Your task to perform on an android device: Open Youtube and go to the subscriptions tab Image 0: 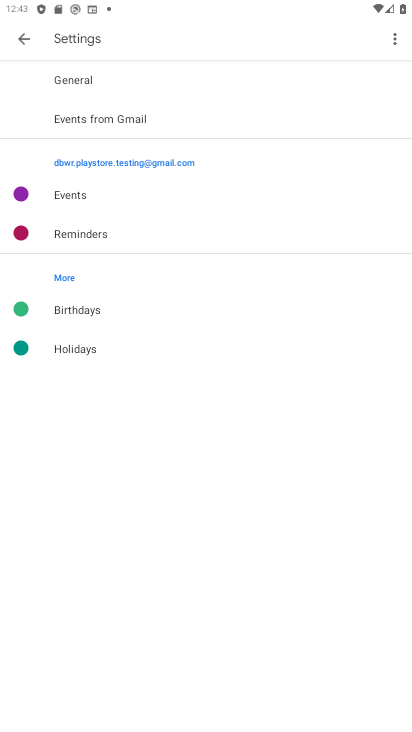
Step 0: press home button
Your task to perform on an android device: Open Youtube and go to the subscriptions tab Image 1: 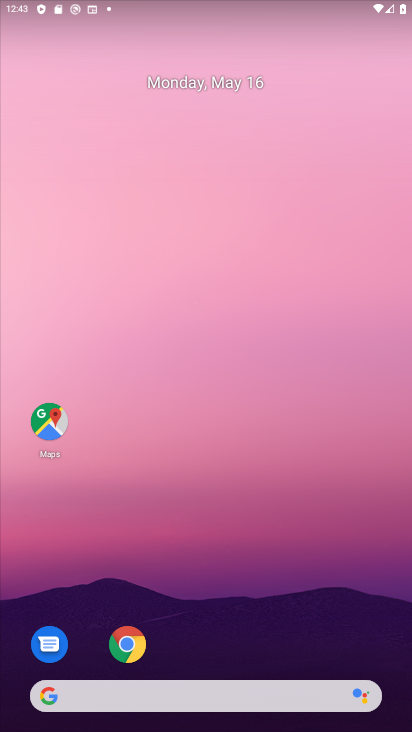
Step 1: drag from (212, 690) to (241, 324)
Your task to perform on an android device: Open Youtube and go to the subscriptions tab Image 2: 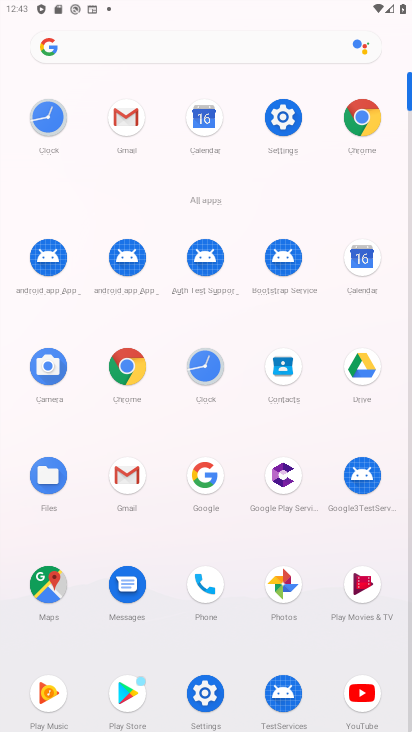
Step 2: click (366, 676)
Your task to perform on an android device: Open Youtube and go to the subscriptions tab Image 3: 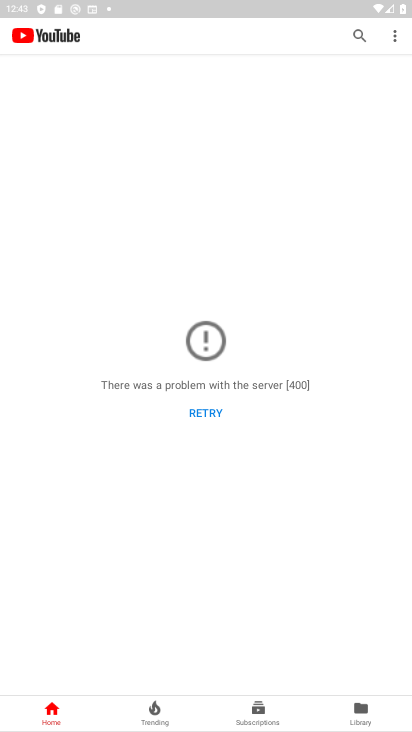
Step 3: click (260, 702)
Your task to perform on an android device: Open Youtube and go to the subscriptions tab Image 4: 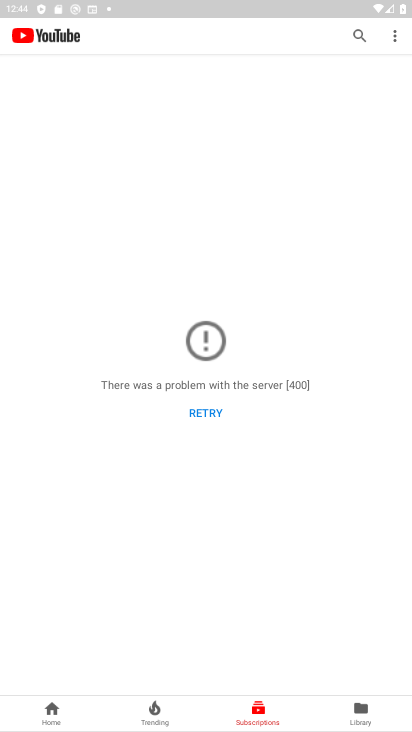
Step 4: task complete